Your task to perform on an android device: uninstall "Google News" Image 0: 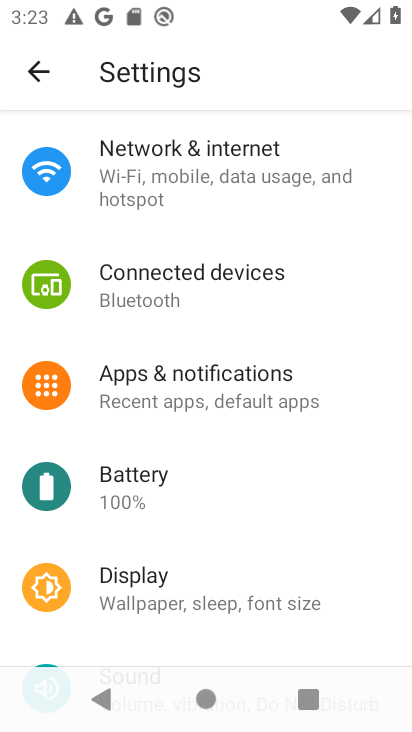
Step 0: press home button
Your task to perform on an android device: uninstall "Google News" Image 1: 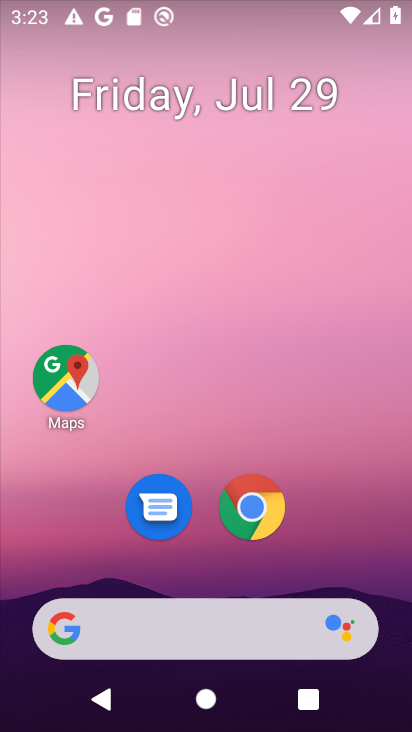
Step 1: click (244, 621)
Your task to perform on an android device: uninstall "Google News" Image 2: 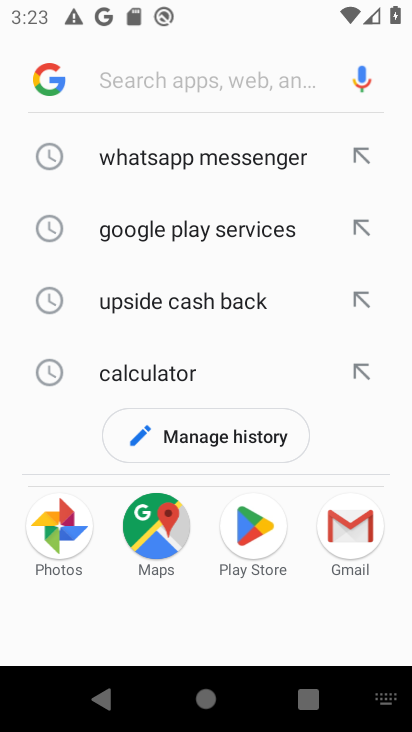
Step 2: type "google news"
Your task to perform on an android device: uninstall "Google News" Image 3: 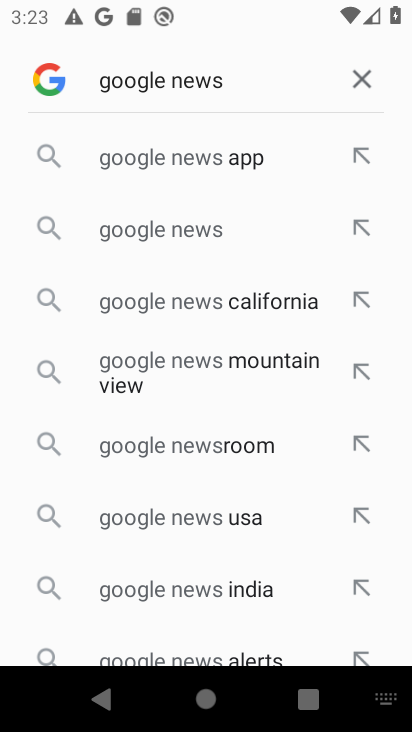
Step 3: click (225, 146)
Your task to perform on an android device: uninstall "Google News" Image 4: 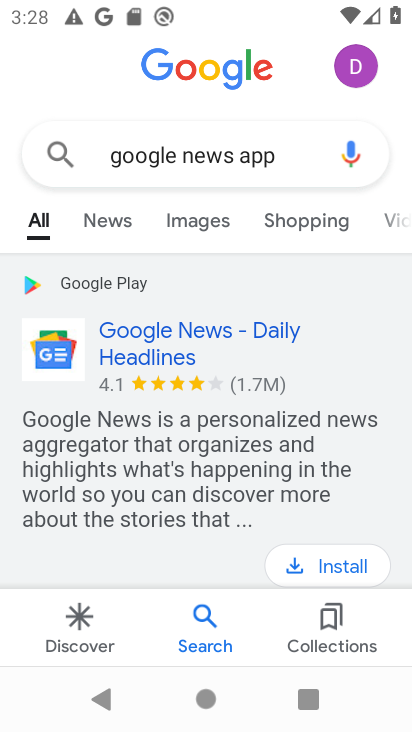
Step 4: task complete